Your task to perform on an android device: toggle translation in the chrome app Image 0: 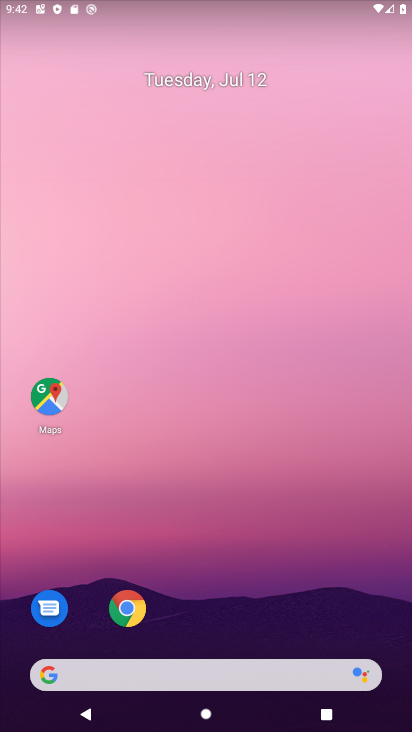
Step 0: click (128, 609)
Your task to perform on an android device: toggle translation in the chrome app Image 1: 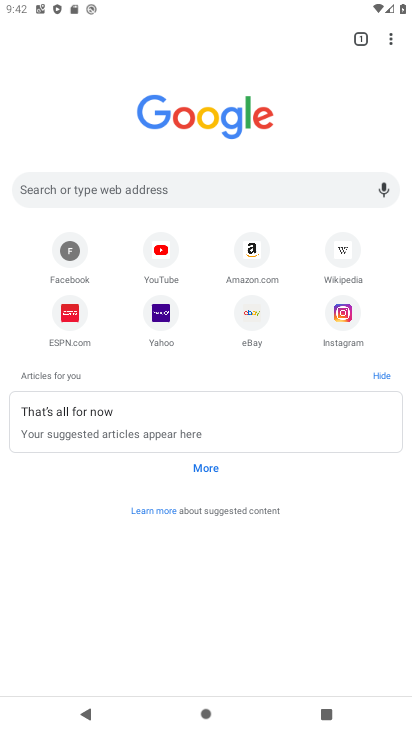
Step 1: click (389, 43)
Your task to perform on an android device: toggle translation in the chrome app Image 2: 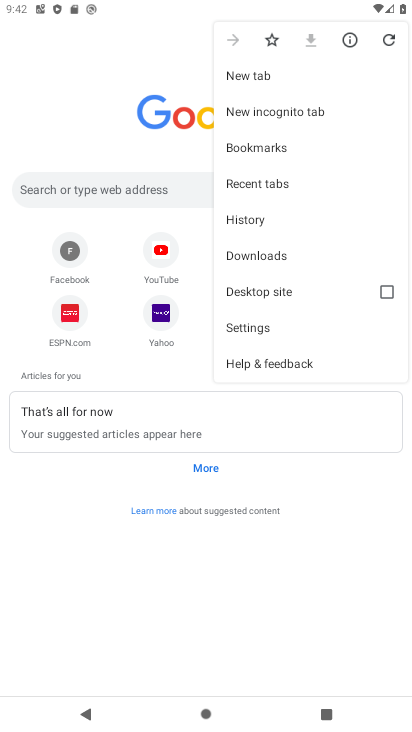
Step 2: click (273, 323)
Your task to perform on an android device: toggle translation in the chrome app Image 3: 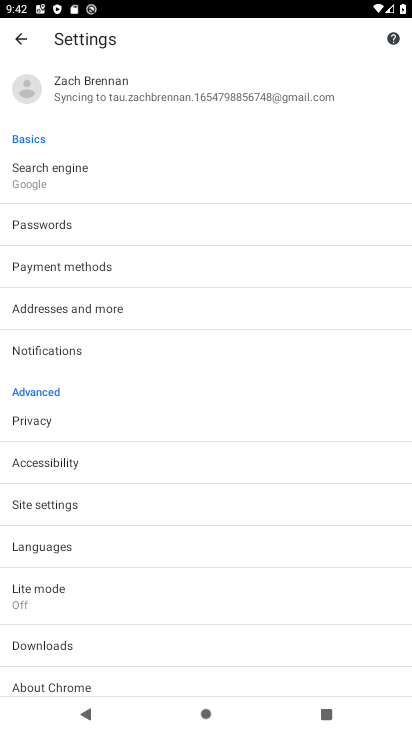
Step 3: click (108, 553)
Your task to perform on an android device: toggle translation in the chrome app Image 4: 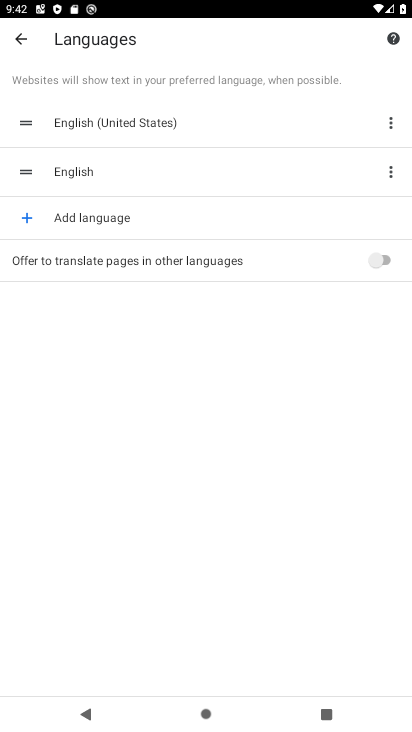
Step 4: click (362, 262)
Your task to perform on an android device: toggle translation in the chrome app Image 5: 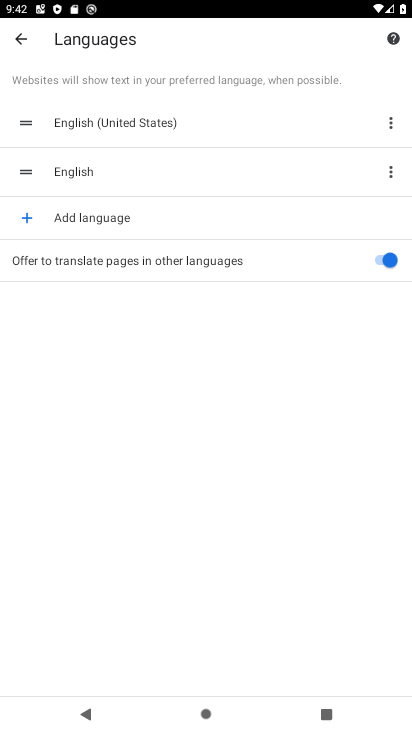
Step 5: task complete